Your task to perform on an android device: Play the last video I watched on Youtube Image 0: 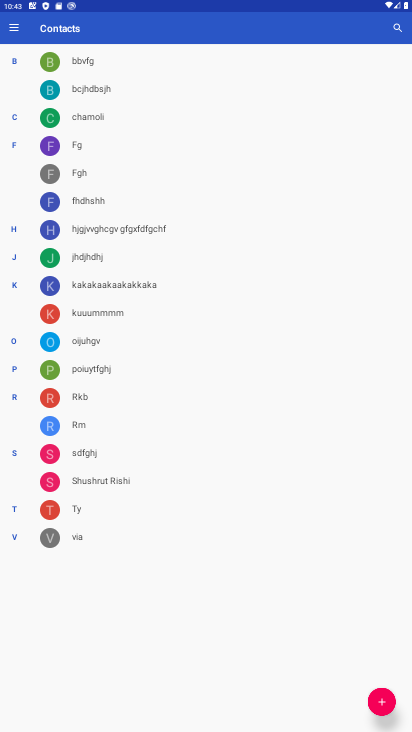
Step 0: press home button
Your task to perform on an android device: Play the last video I watched on Youtube Image 1: 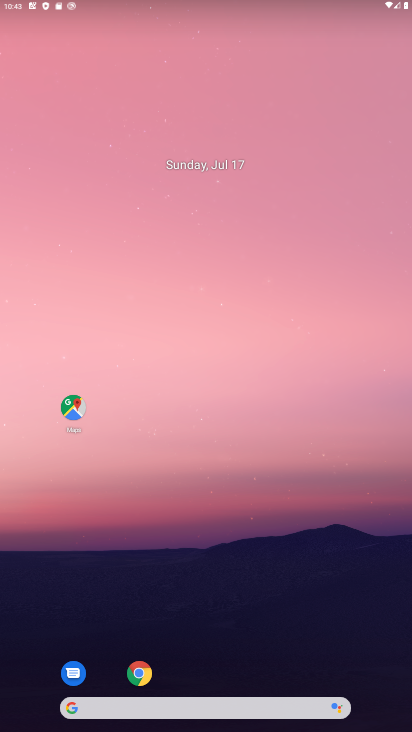
Step 1: drag from (238, 664) to (214, 140)
Your task to perform on an android device: Play the last video I watched on Youtube Image 2: 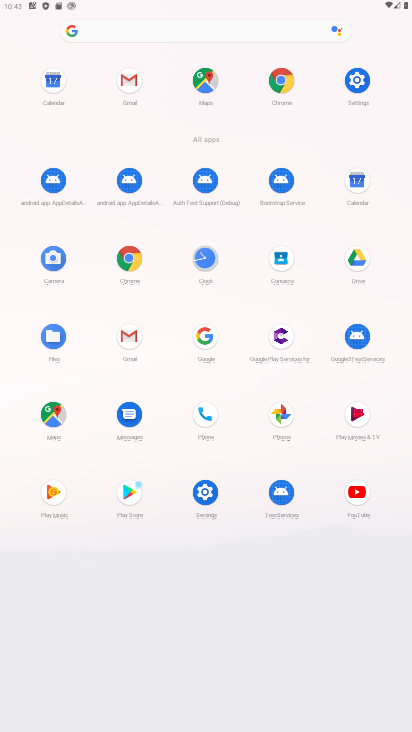
Step 2: click (353, 494)
Your task to perform on an android device: Play the last video I watched on Youtube Image 3: 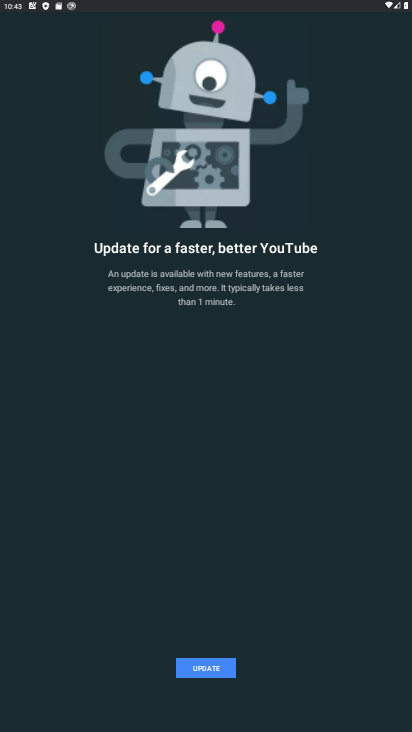
Step 3: click (205, 669)
Your task to perform on an android device: Play the last video I watched on Youtube Image 4: 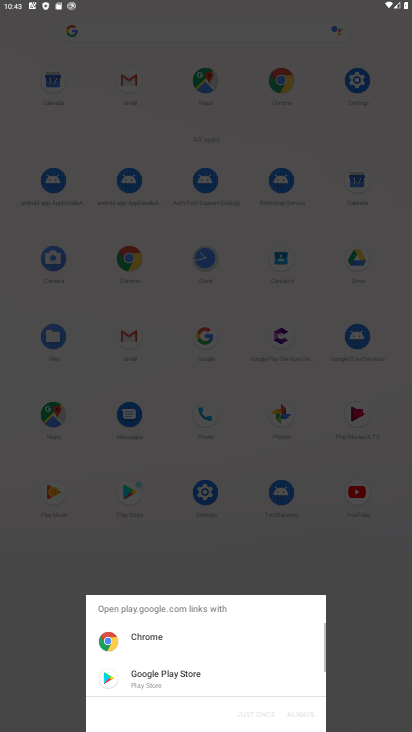
Step 4: click (175, 682)
Your task to perform on an android device: Play the last video I watched on Youtube Image 5: 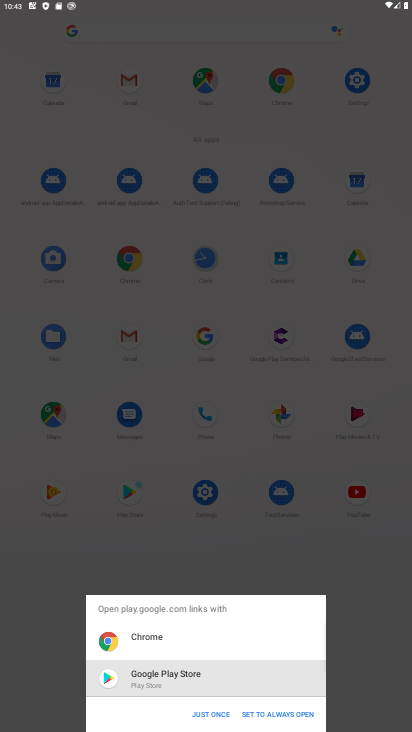
Step 5: click (206, 715)
Your task to perform on an android device: Play the last video I watched on Youtube Image 6: 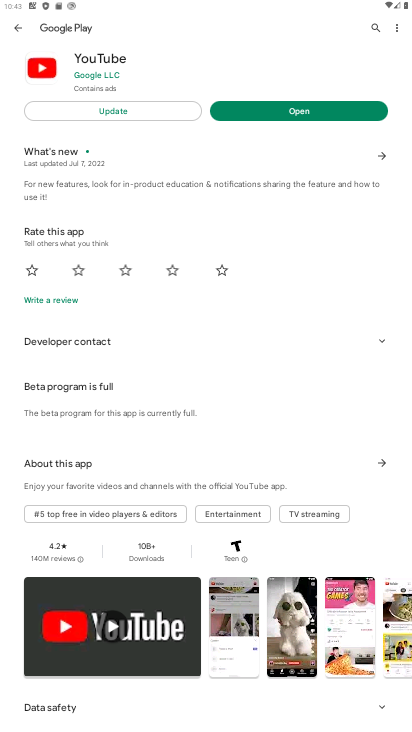
Step 6: click (147, 100)
Your task to perform on an android device: Play the last video I watched on Youtube Image 7: 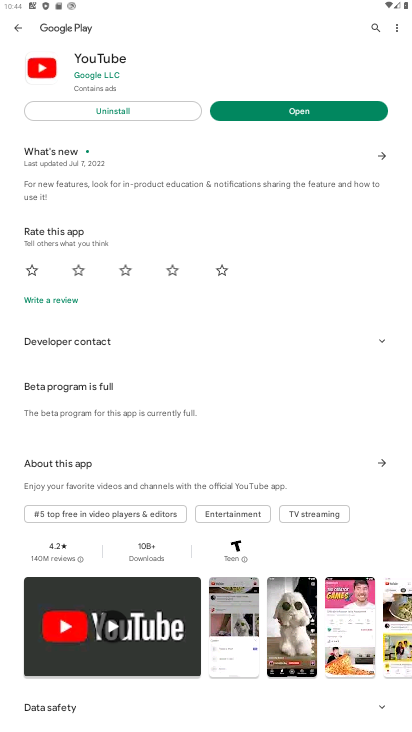
Step 7: click (284, 106)
Your task to perform on an android device: Play the last video I watched on Youtube Image 8: 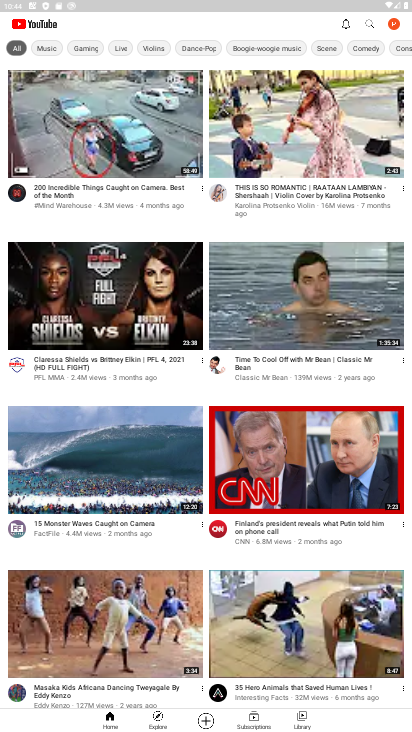
Step 8: click (370, 24)
Your task to perform on an android device: Play the last video I watched on Youtube Image 9: 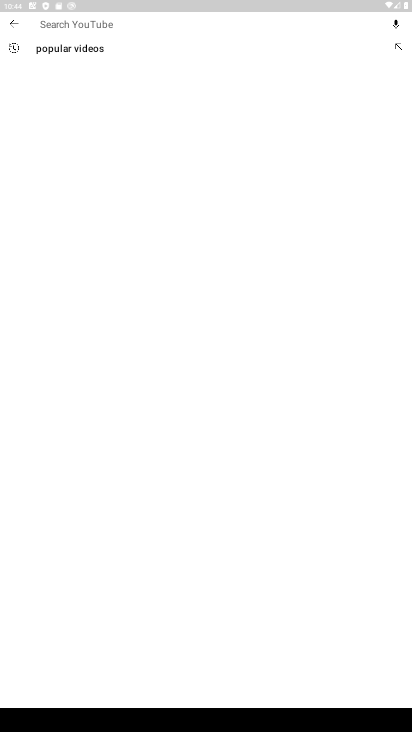
Step 9: click (133, 52)
Your task to perform on an android device: Play the last video I watched on Youtube Image 10: 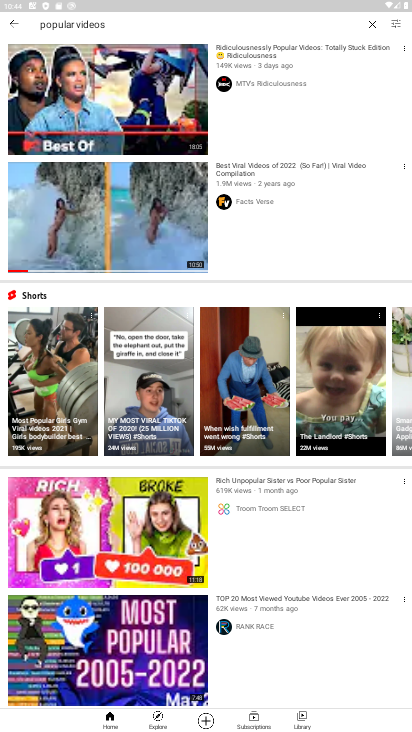
Step 10: task complete